Your task to perform on an android device: empty trash in the gmail app Image 0: 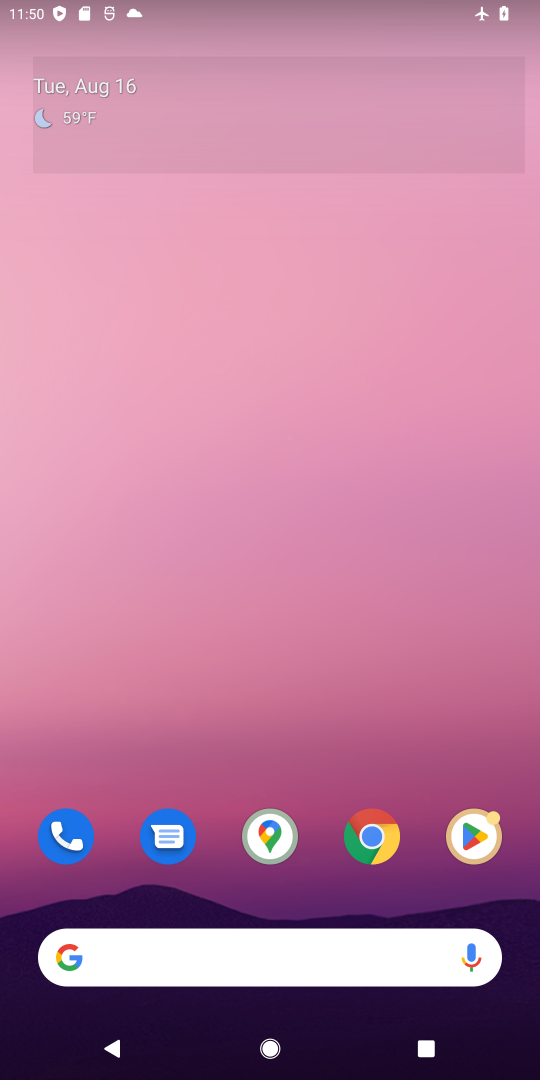
Step 0: drag from (227, 973) to (297, 187)
Your task to perform on an android device: empty trash in the gmail app Image 1: 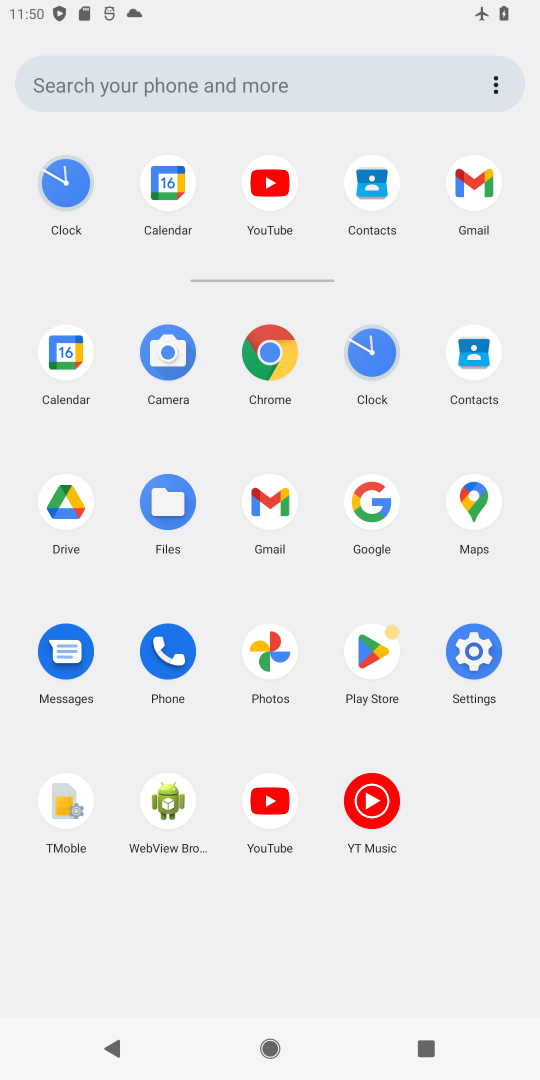
Step 1: click (468, 183)
Your task to perform on an android device: empty trash in the gmail app Image 2: 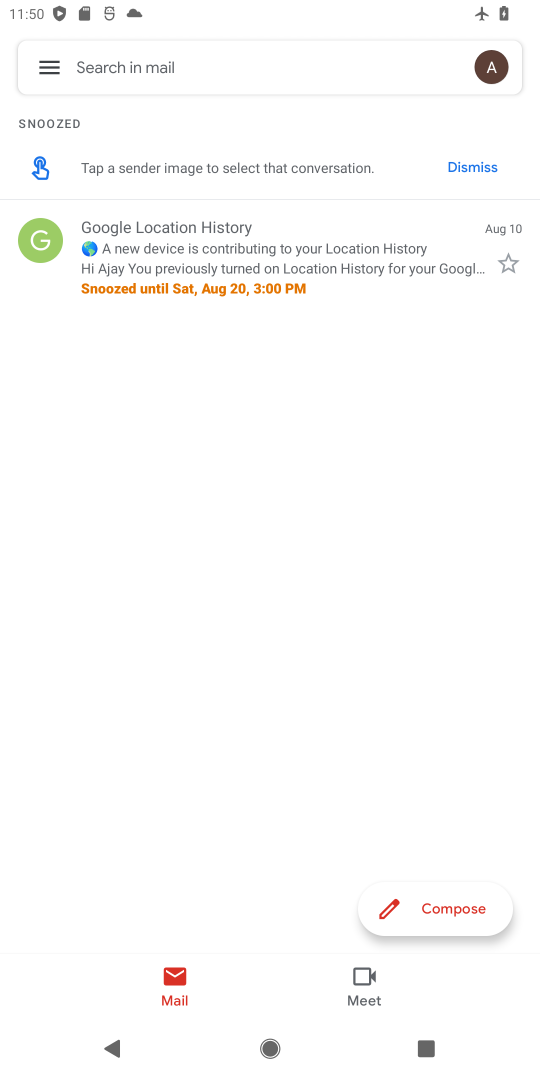
Step 2: click (52, 70)
Your task to perform on an android device: empty trash in the gmail app Image 3: 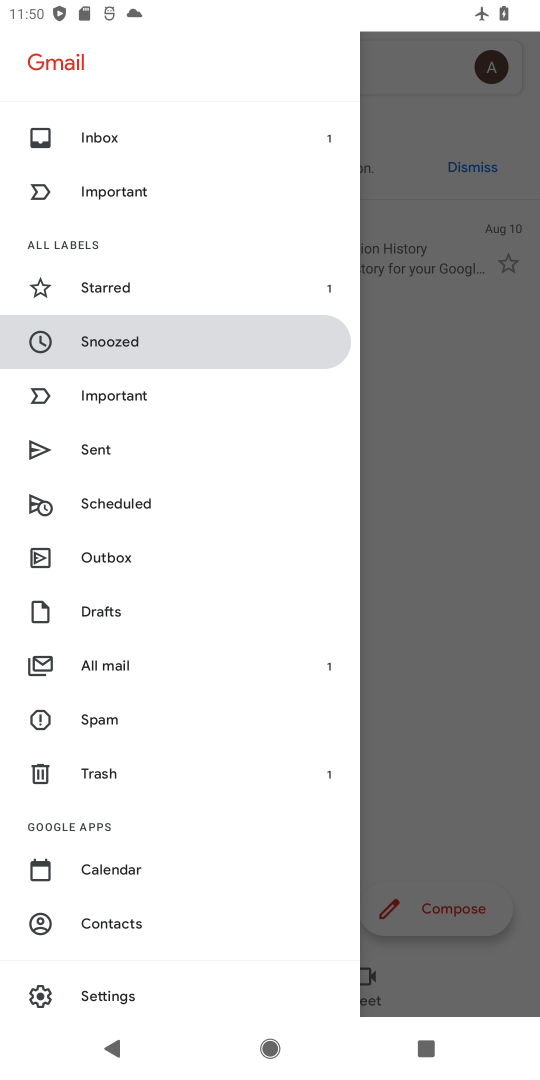
Step 3: click (107, 781)
Your task to perform on an android device: empty trash in the gmail app Image 4: 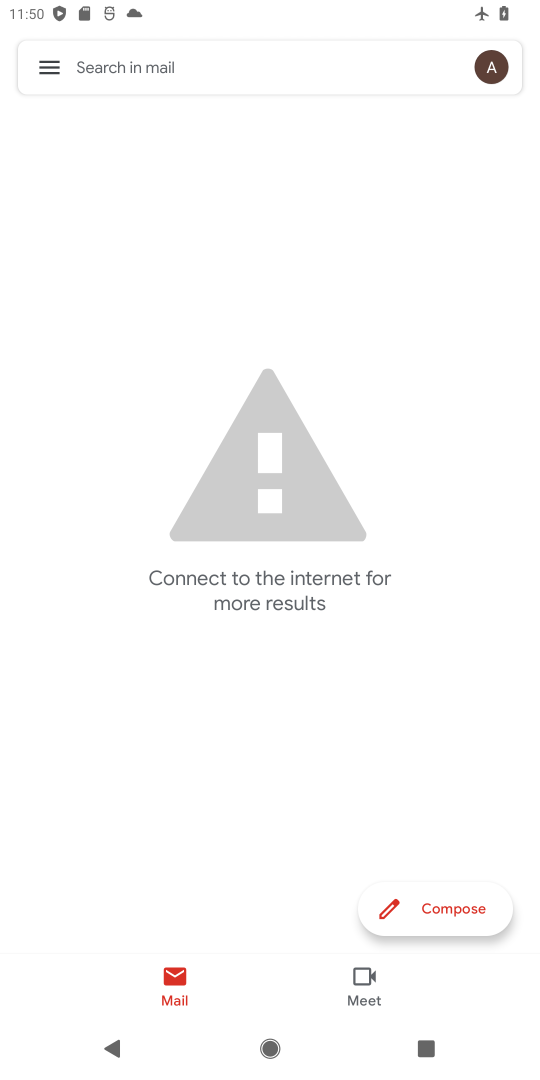
Step 4: task complete